Your task to perform on an android device: Open Maps and search for coffee Image 0: 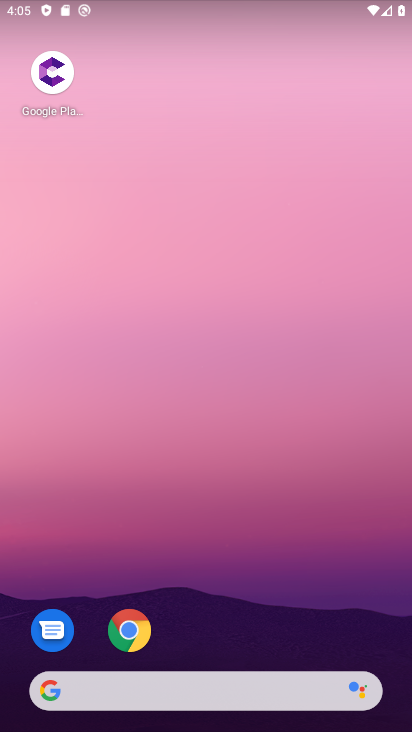
Step 0: drag from (300, 613) to (285, 233)
Your task to perform on an android device: Open Maps and search for coffee Image 1: 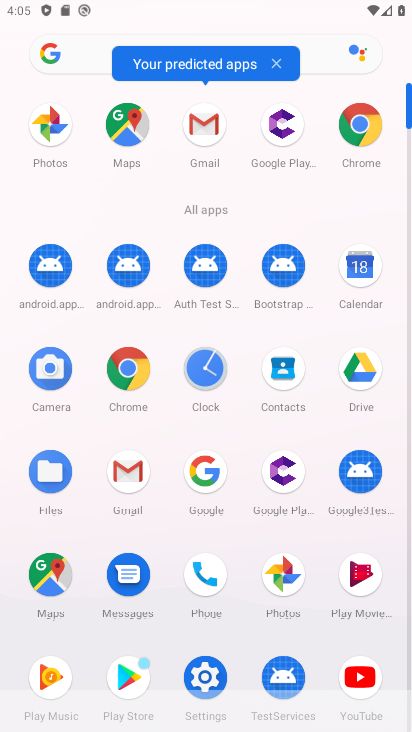
Step 1: click (129, 123)
Your task to perform on an android device: Open Maps and search for coffee Image 2: 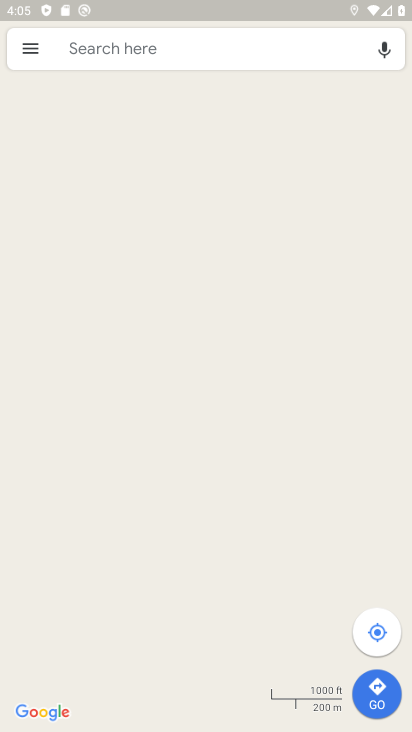
Step 2: click (106, 48)
Your task to perform on an android device: Open Maps and search for coffee Image 3: 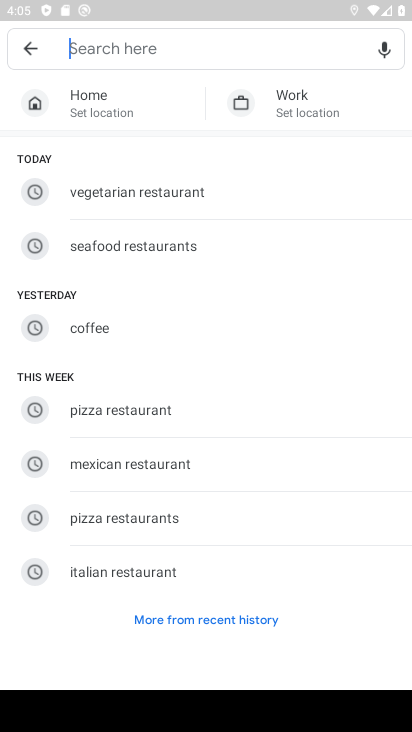
Step 3: type "coffee shop"
Your task to perform on an android device: Open Maps and search for coffee Image 4: 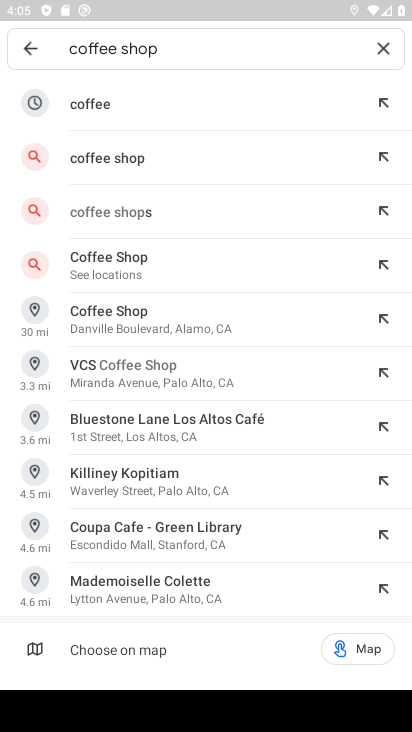
Step 4: click (123, 153)
Your task to perform on an android device: Open Maps and search for coffee Image 5: 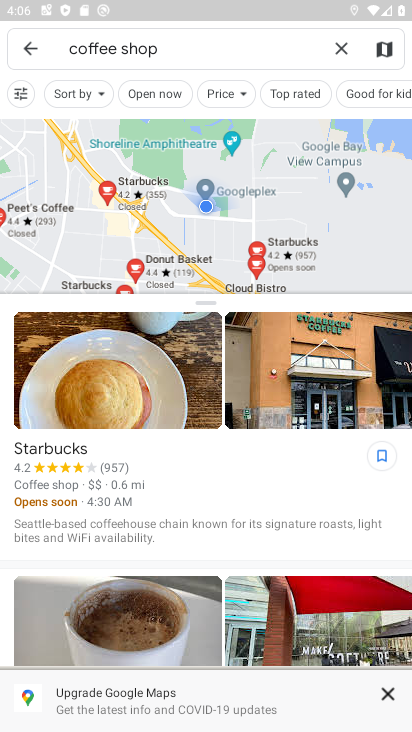
Step 5: task complete